Your task to perform on an android device: turn smart compose on in the gmail app Image 0: 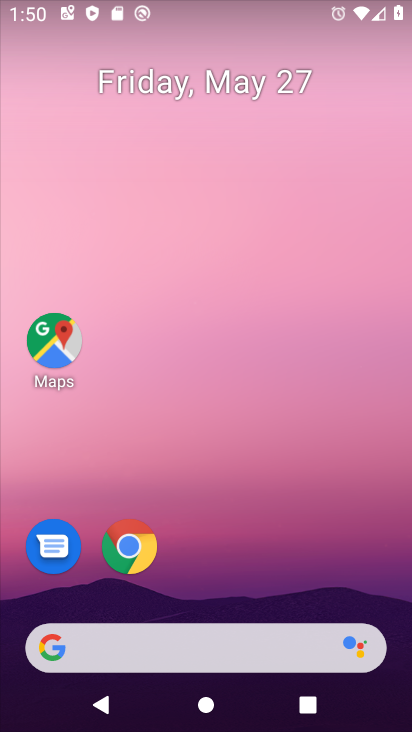
Step 0: drag from (258, 659) to (298, 189)
Your task to perform on an android device: turn smart compose on in the gmail app Image 1: 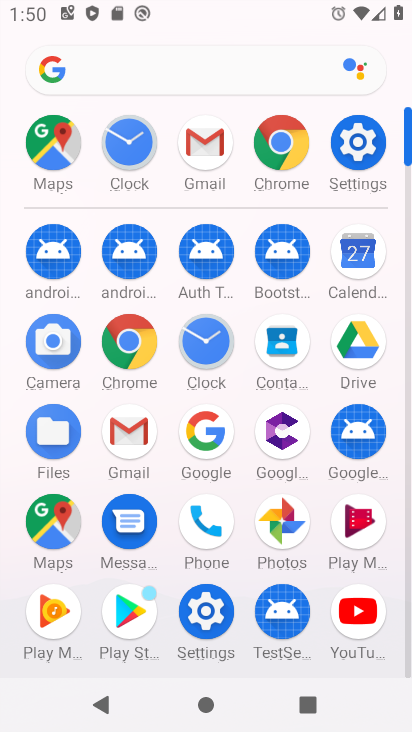
Step 1: click (208, 165)
Your task to perform on an android device: turn smart compose on in the gmail app Image 2: 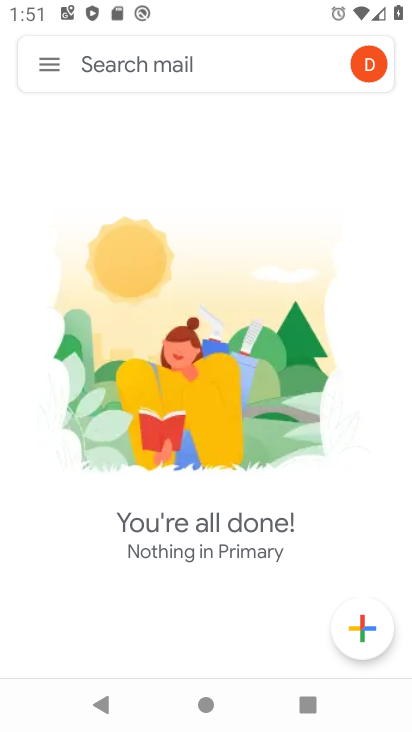
Step 2: click (49, 65)
Your task to perform on an android device: turn smart compose on in the gmail app Image 3: 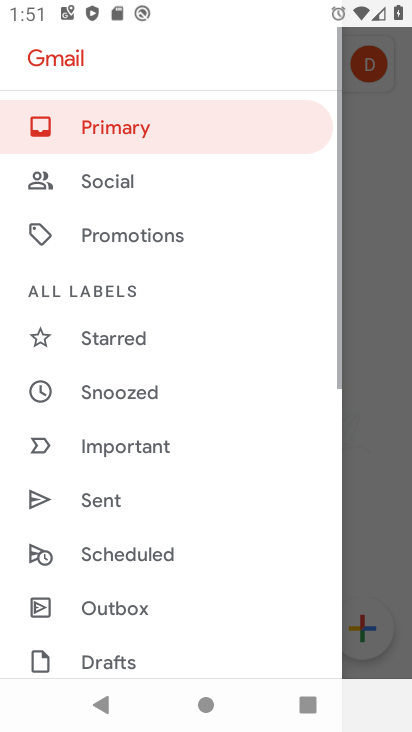
Step 3: drag from (118, 572) to (178, 312)
Your task to perform on an android device: turn smart compose on in the gmail app Image 4: 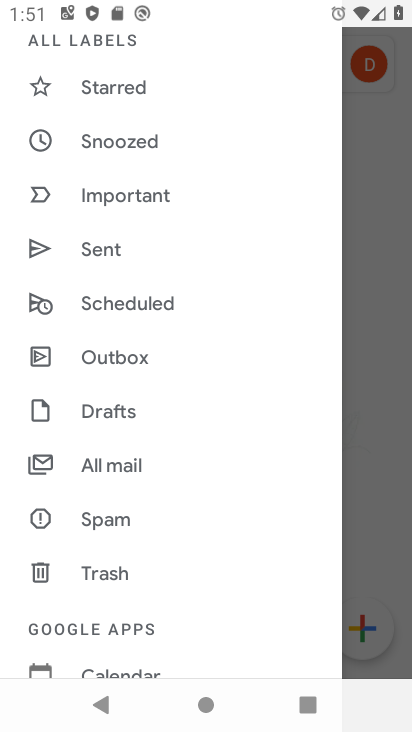
Step 4: drag from (116, 598) to (176, 313)
Your task to perform on an android device: turn smart compose on in the gmail app Image 5: 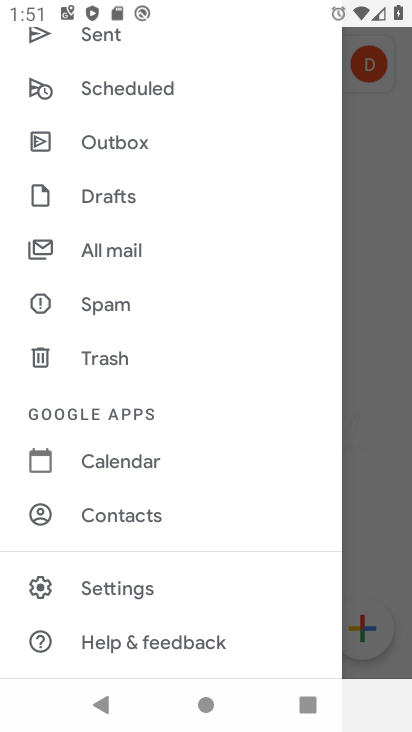
Step 5: click (121, 589)
Your task to perform on an android device: turn smart compose on in the gmail app Image 6: 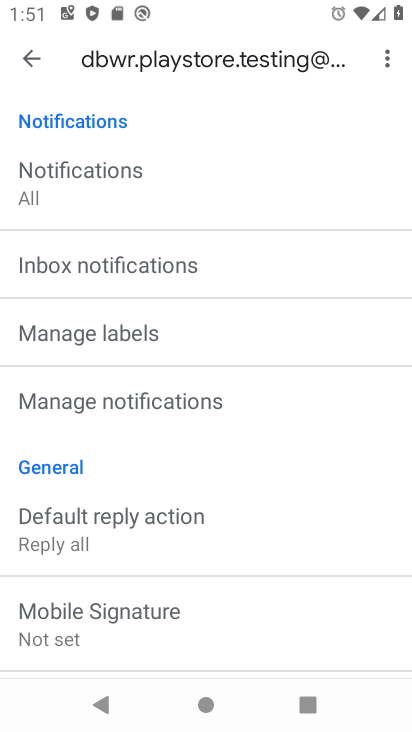
Step 6: drag from (121, 589) to (152, 320)
Your task to perform on an android device: turn smart compose on in the gmail app Image 7: 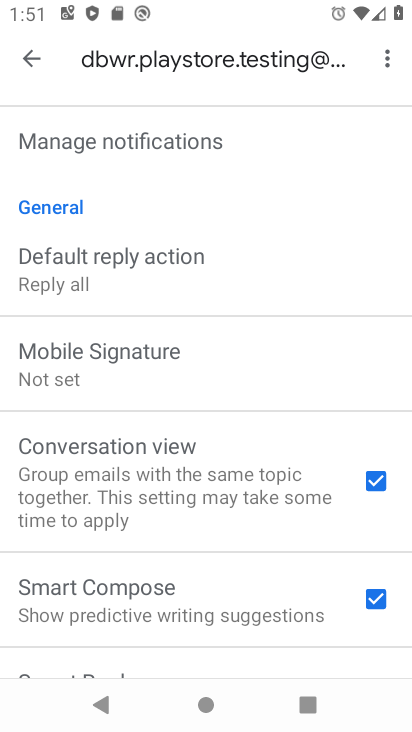
Step 7: drag from (133, 513) to (195, 246)
Your task to perform on an android device: turn smart compose on in the gmail app Image 8: 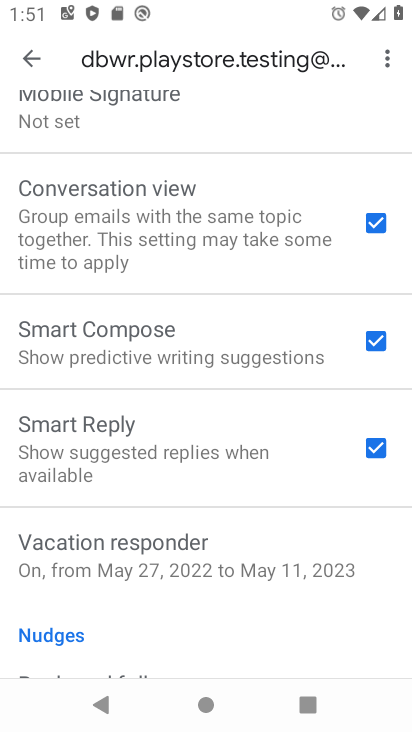
Step 8: drag from (170, 558) to (245, 391)
Your task to perform on an android device: turn smart compose on in the gmail app Image 9: 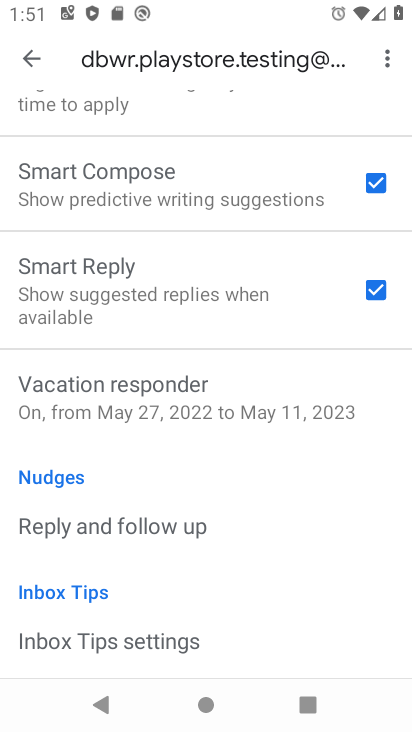
Step 9: click (321, 187)
Your task to perform on an android device: turn smart compose on in the gmail app Image 10: 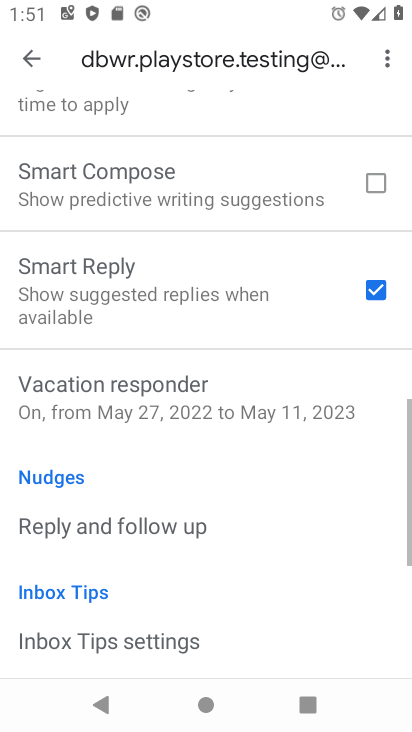
Step 10: click (321, 187)
Your task to perform on an android device: turn smart compose on in the gmail app Image 11: 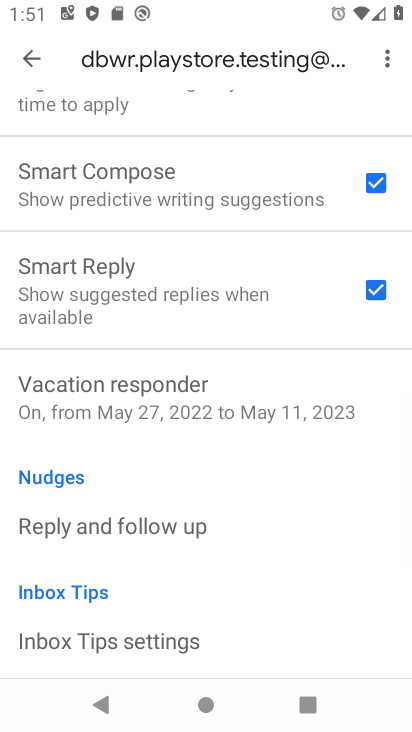
Step 11: task complete